Your task to perform on an android device: Open the phone app and click the voicemail tab. Image 0: 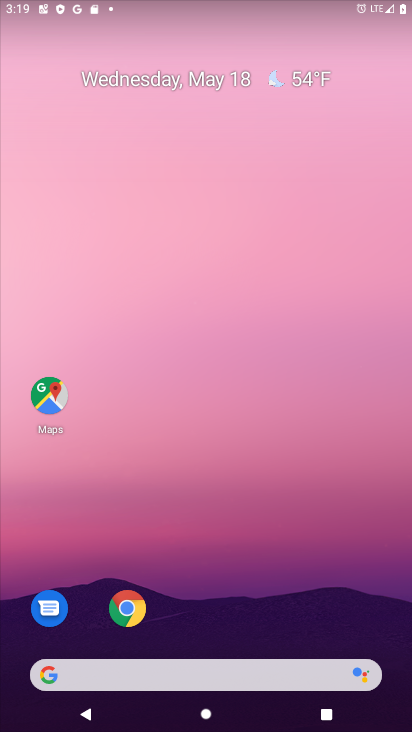
Step 0: drag from (312, 535) to (301, 9)
Your task to perform on an android device: Open the phone app and click the voicemail tab. Image 1: 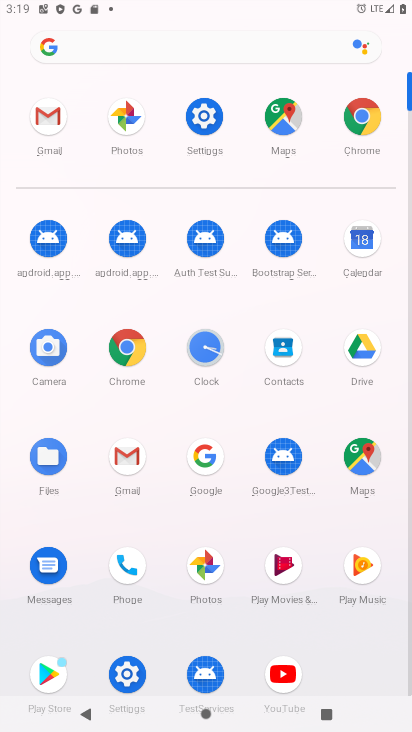
Step 1: click (134, 574)
Your task to perform on an android device: Open the phone app and click the voicemail tab. Image 2: 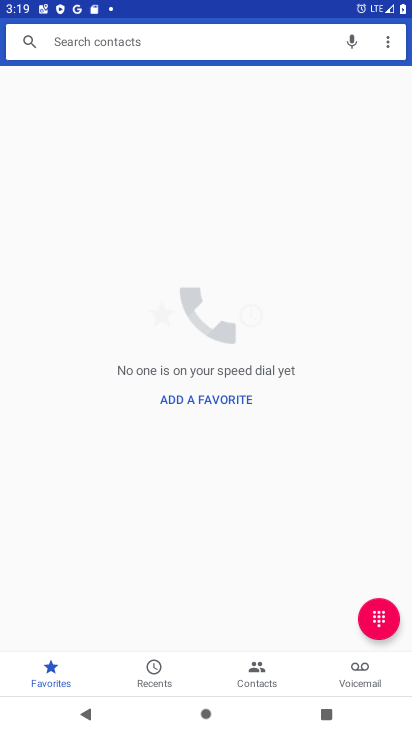
Step 2: click (370, 681)
Your task to perform on an android device: Open the phone app and click the voicemail tab. Image 3: 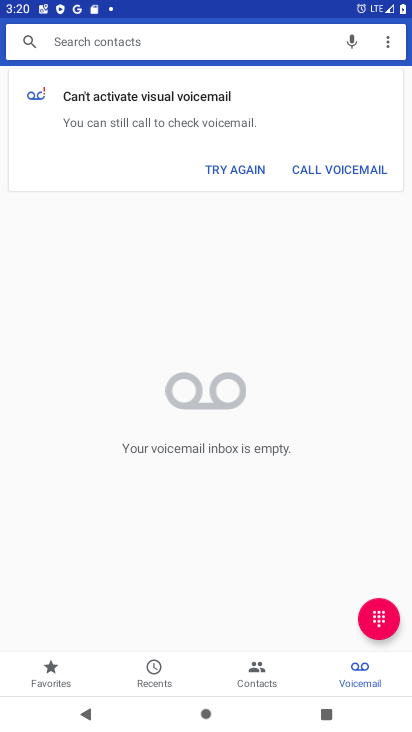
Step 3: task complete